Your task to perform on an android device: toggle airplane mode Image 0: 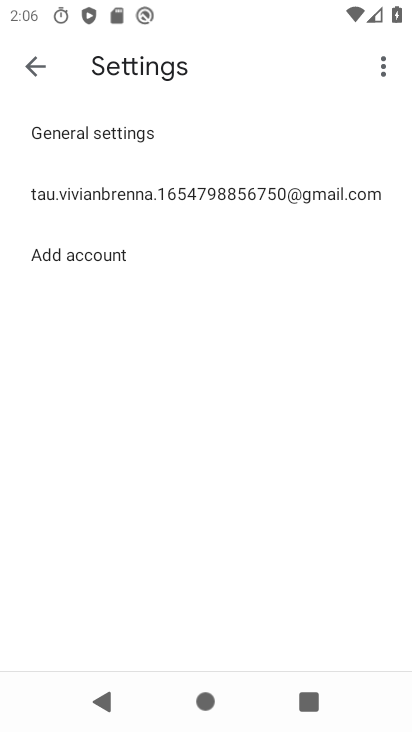
Step 0: press home button
Your task to perform on an android device: toggle airplane mode Image 1: 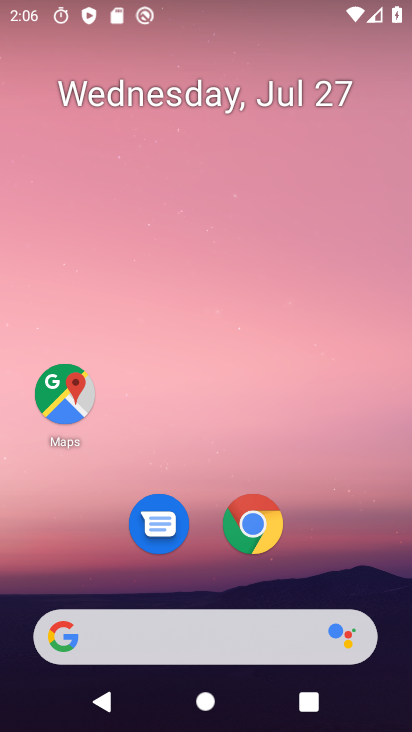
Step 1: drag from (316, 514) to (368, 59)
Your task to perform on an android device: toggle airplane mode Image 2: 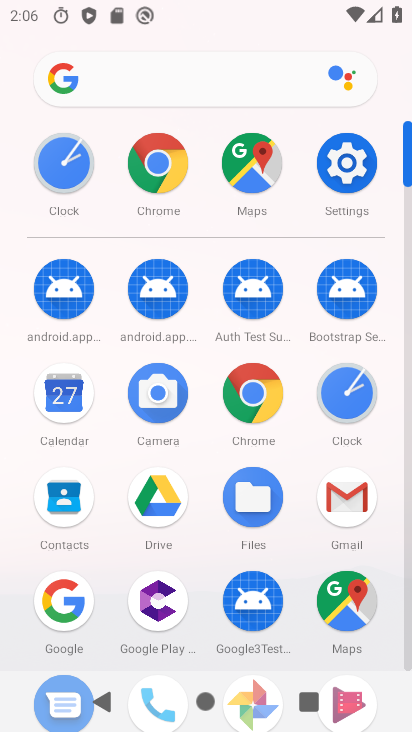
Step 2: click (345, 166)
Your task to perform on an android device: toggle airplane mode Image 3: 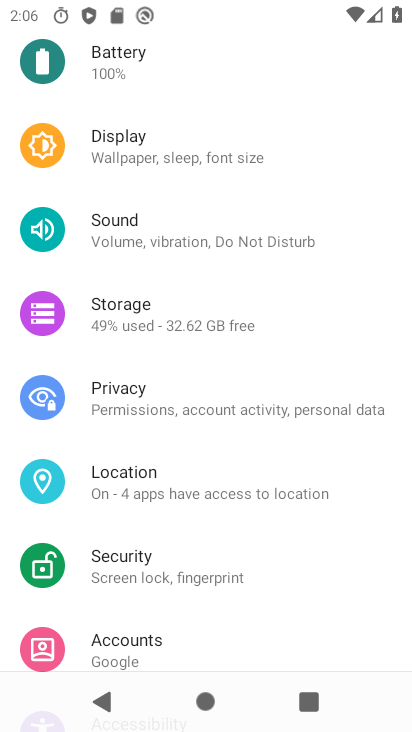
Step 3: drag from (236, 194) to (194, 547)
Your task to perform on an android device: toggle airplane mode Image 4: 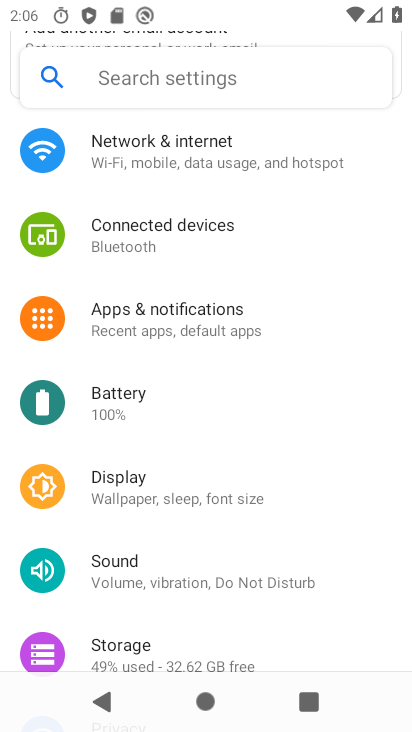
Step 4: click (252, 158)
Your task to perform on an android device: toggle airplane mode Image 5: 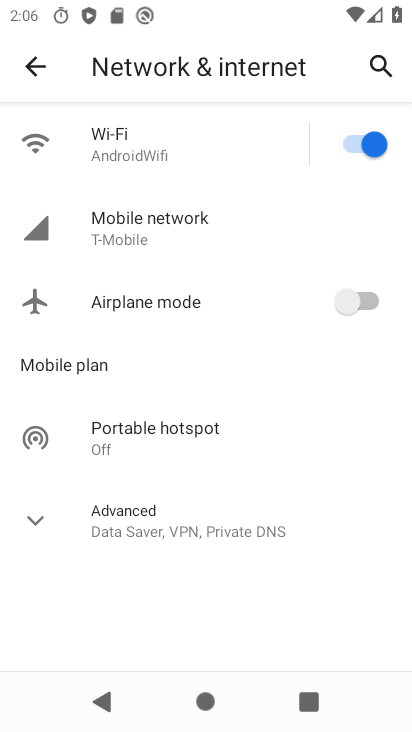
Step 5: click (354, 296)
Your task to perform on an android device: toggle airplane mode Image 6: 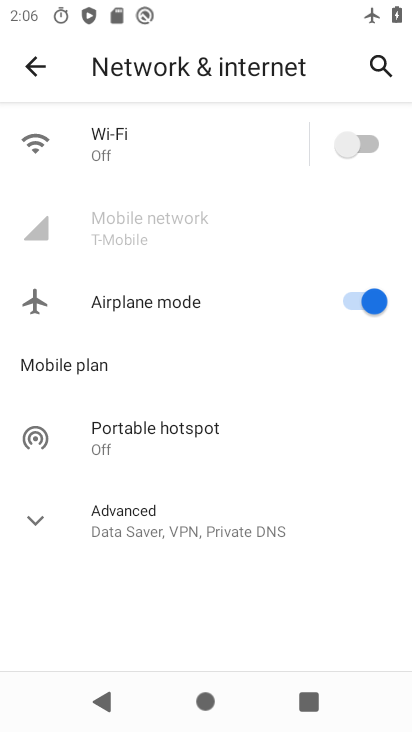
Step 6: task complete